Your task to perform on an android device: toggle translation in the chrome app Image 0: 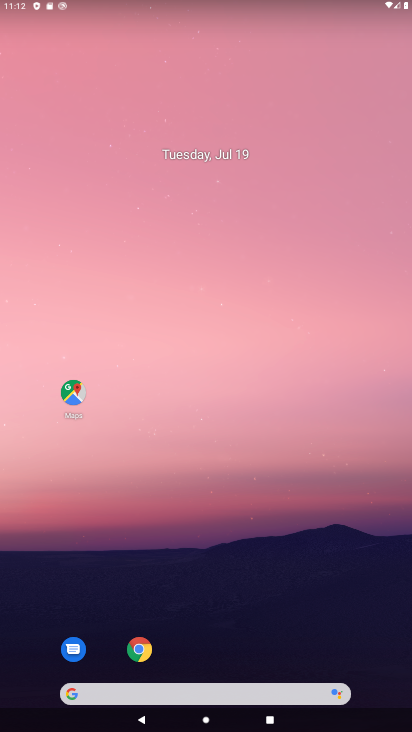
Step 0: drag from (234, 594) to (244, 202)
Your task to perform on an android device: toggle translation in the chrome app Image 1: 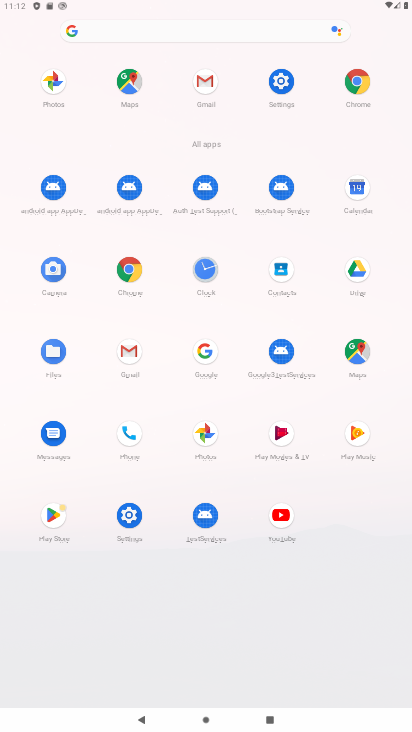
Step 1: click (117, 276)
Your task to perform on an android device: toggle translation in the chrome app Image 2: 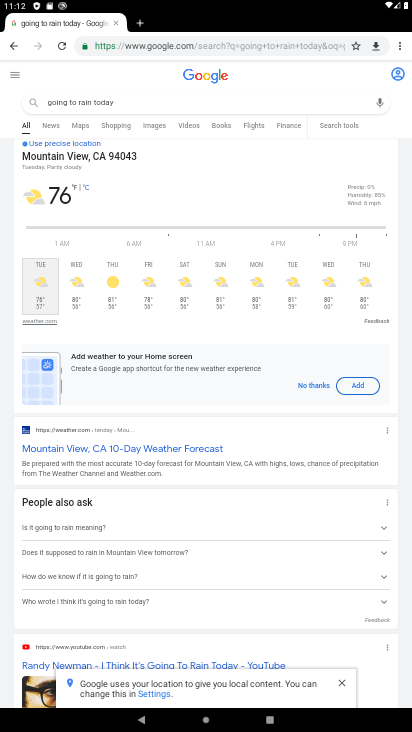
Step 2: drag from (401, 46) to (324, 289)
Your task to perform on an android device: toggle translation in the chrome app Image 3: 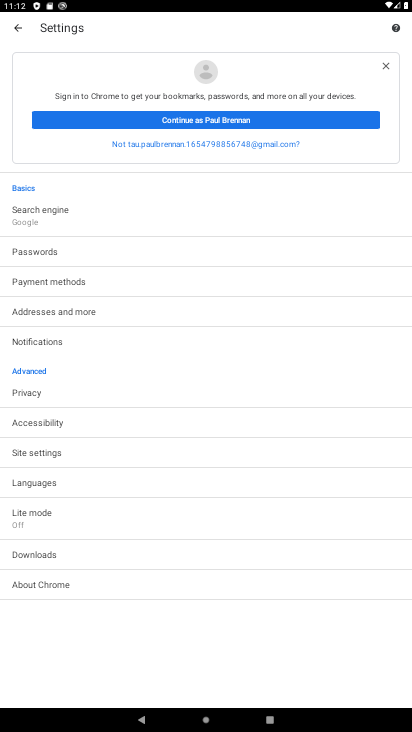
Step 3: click (55, 495)
Your task to perform on an android device: toggle translation in the chrome app Image 4: 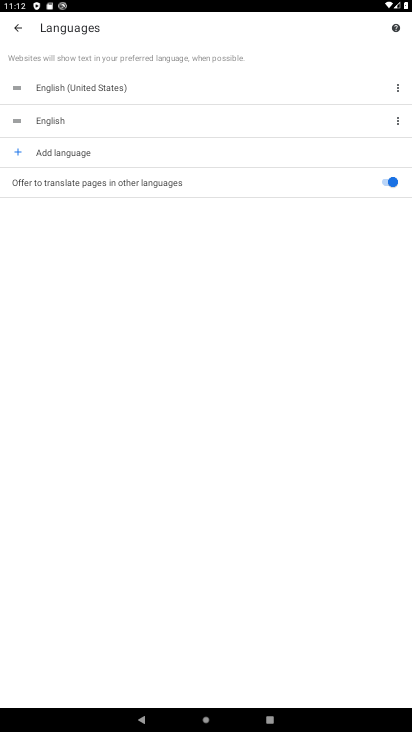
Step 4: click (393, 182)
Your task to perform on an android device: toggle translation in the chrome app Image 5: 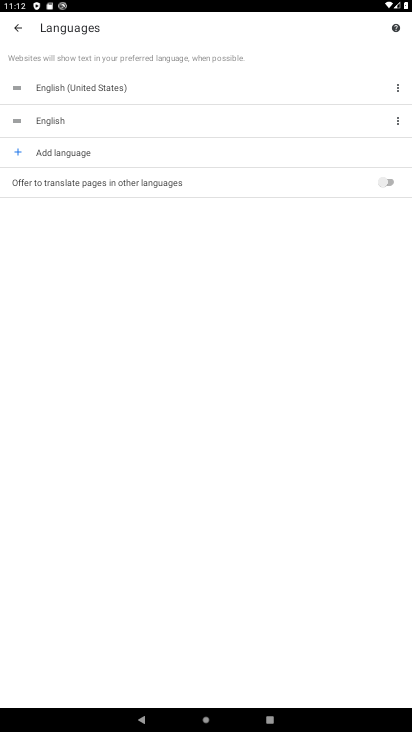
Step 5: task complete